Your task to perform on an android device: turn vacation reply on in the gmail app Image 0: 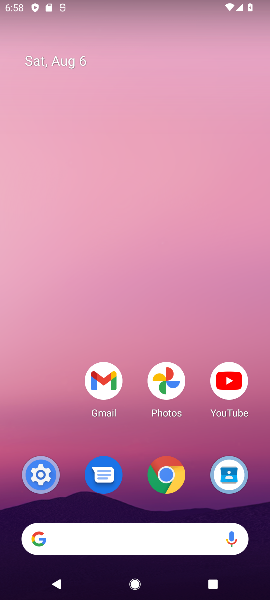
Step 0: click (135, 438)
Your task to perform on an android device: turn vacation reply on in the gmail app Image 1: 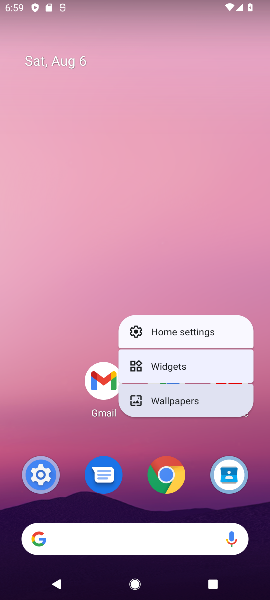
Step 1: drag from (135, 438) to (171, 95)
Your task to perform on an android device: turn vacation reply on in the gmail app Image 2: 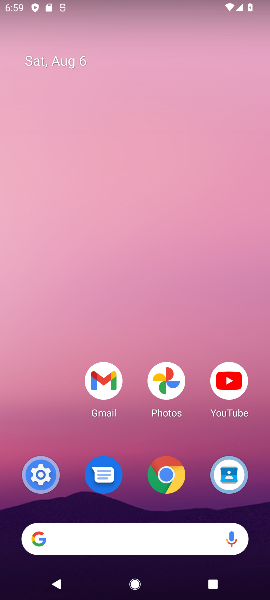
Step 2: drag from (134, 321) to (139, 87)
Your task to perform on an android device: turn vacation reply on in the gmail app Image 3: 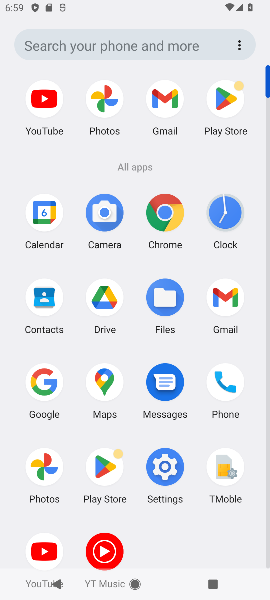
Step 3: click (168, 123)
Your task to perform on an android device: turn vacation reply on in the gmail app Image 4: 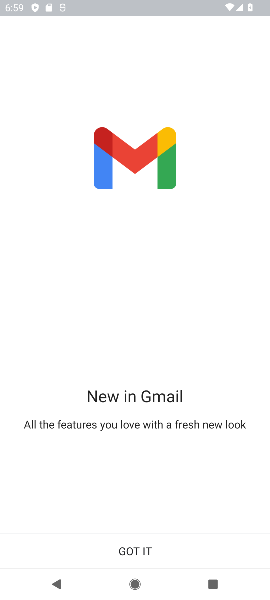
Step 4: click (155, 543)
Your task to perform on an android device: turn vacation reply on in the gmail app Image 5: 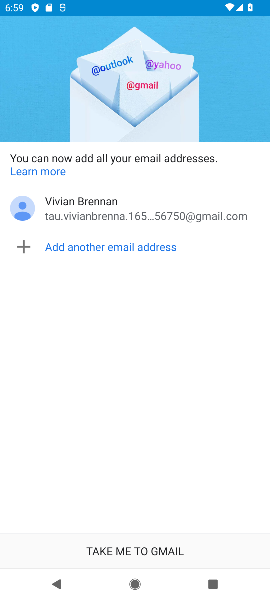
Step 5: click (155, 543)
Your task to perform on an android device: turn vacation reply on in the gmail app Image 6: 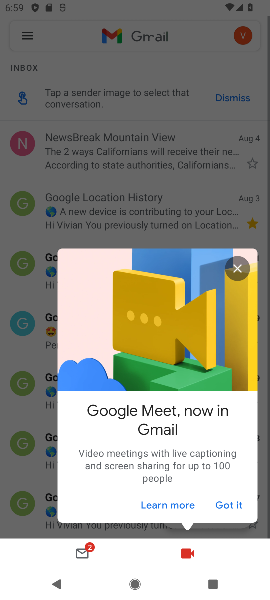
Step 6: click (222, 507)
Your task to perform on an android device: turn vacation reply on in the gmail app Image 7: 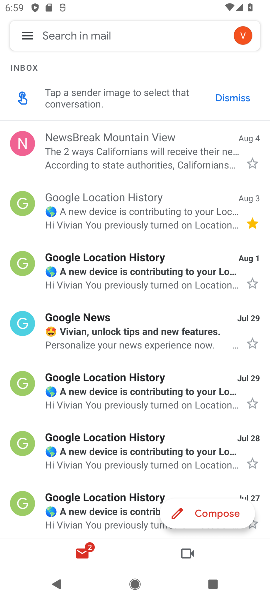
Step 7: click (29, 48)
Your task to perform on an android device: turn vacation reply on in the gmail app Image 8: 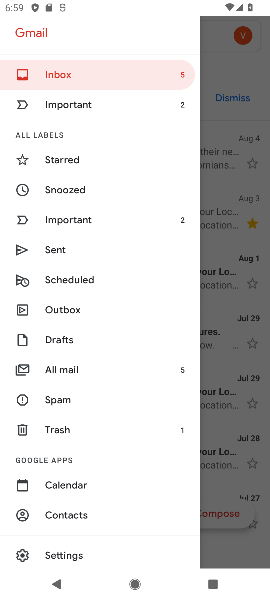
Step 8: click (60, 548)
Your task to perform on an android device: turn vacation reply on in the gmail app Image 9: 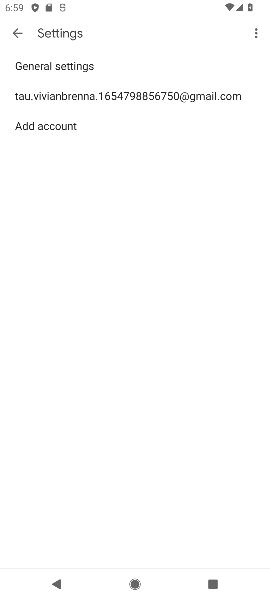
Step 9: click (145, 99)
Your task to perform on an android device: turn vacation reply on in the gmail app Image 10: 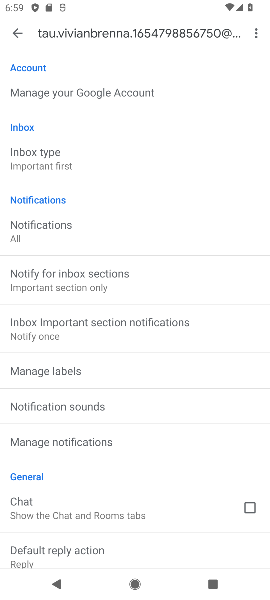
Step 10: drag from (93, 511) to (111, 242)
Your task to perform on an android device: turn vacation reply on in the gmail app Image 11: 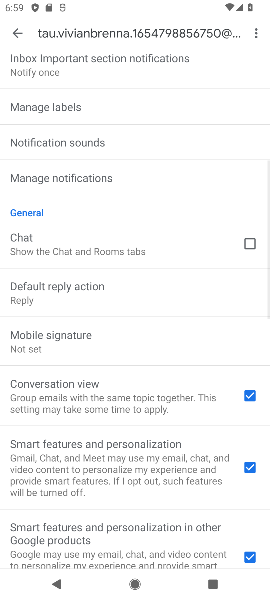
Step 11: drag from (91, 479) to (96, 254)
Your task to perform on an android device: turn vacation reply on in the gmail app Image 12: 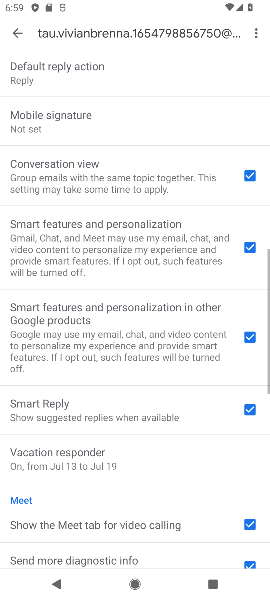
Step 12: click (66, 470)
Your task to perform on an android device: turn vacation reply on in the gmail app Image 13: 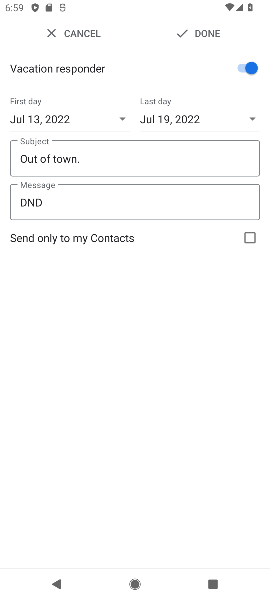
Step 13: task complete